Your task to perform on an android device: Open Google Maps Image 0: 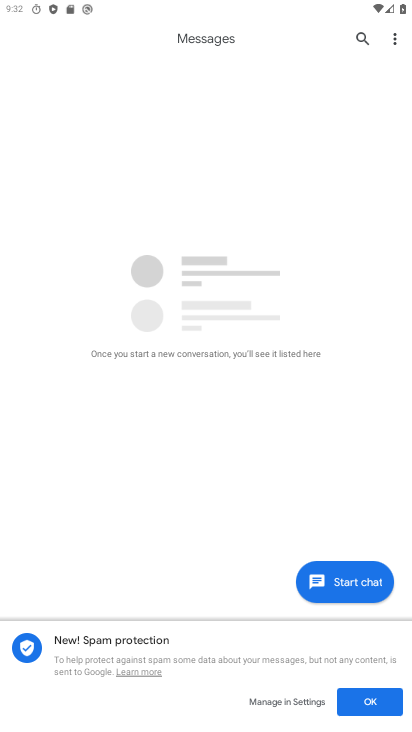
Step 0: drag from (195, 451) to (240, 160)
Your task to perform on an android device: Open Google Maps Image 1: 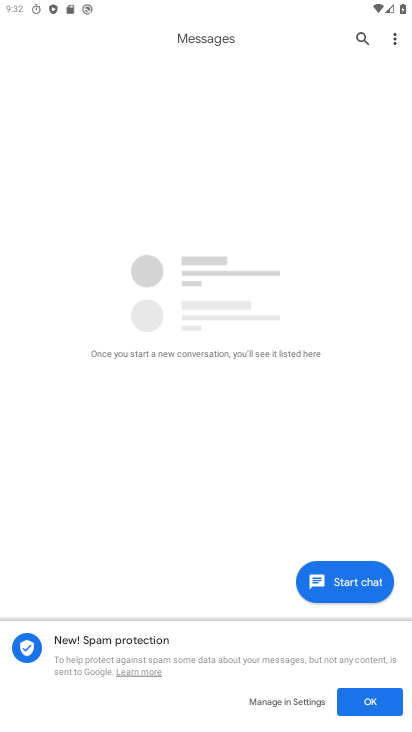
Step 1: press home button
Your task to perform on an android device: Open Google Maps Image 2: 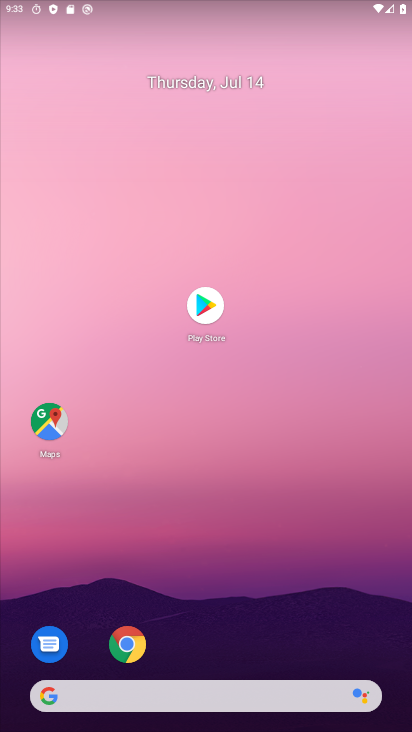
Step 2: drag from (173, 608) to (226, 54)
Your task to perform on an android device: Open Google Maps Image 3: 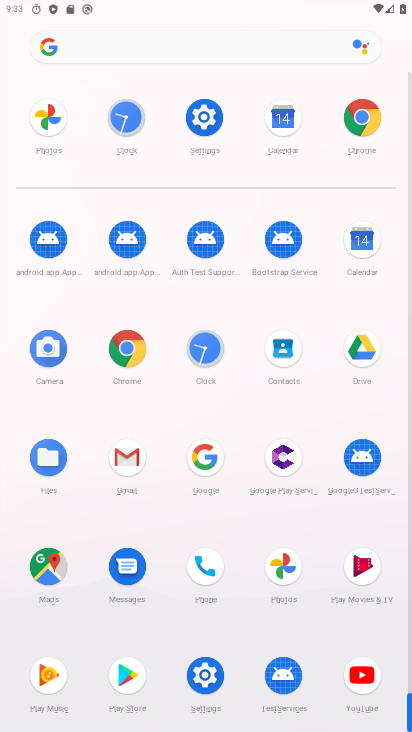
Step 3: click (51, 564)
Your task to perform on an android device: Open Google Maps Image 4: 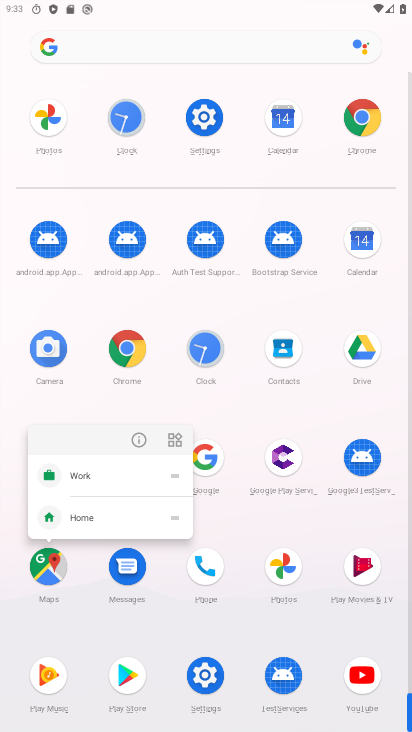
Step 4: click (142, 439)
Your task to perform on an android device: Open Google Maps Image 5: 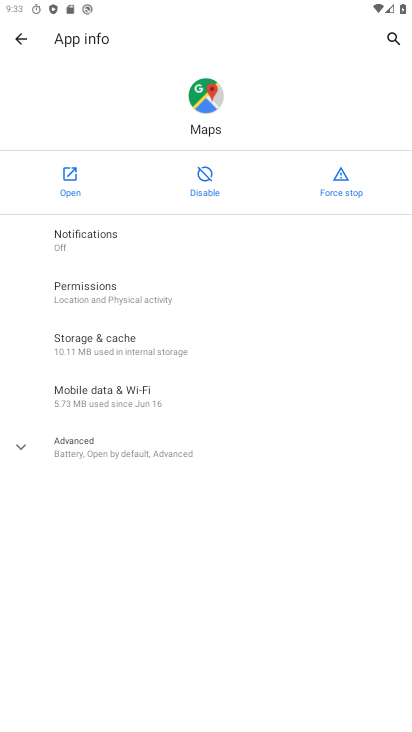
Step 5: click (71, 177)
Your task to perform on an android device: Open Google Maps Image 6: 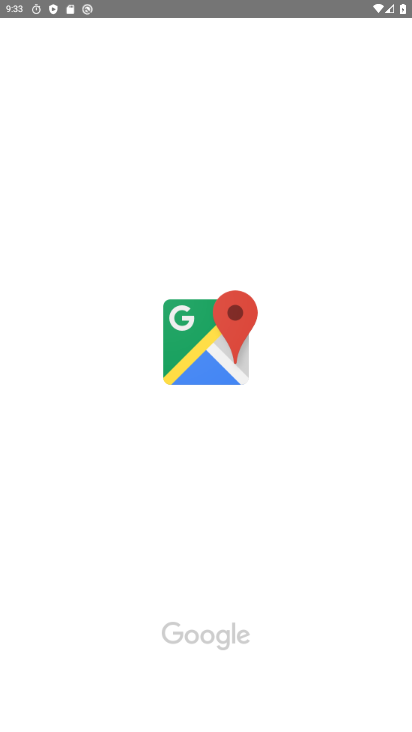
Step 6: task complete